Your task to perform on an android device: Install the Facebook app Image 0: 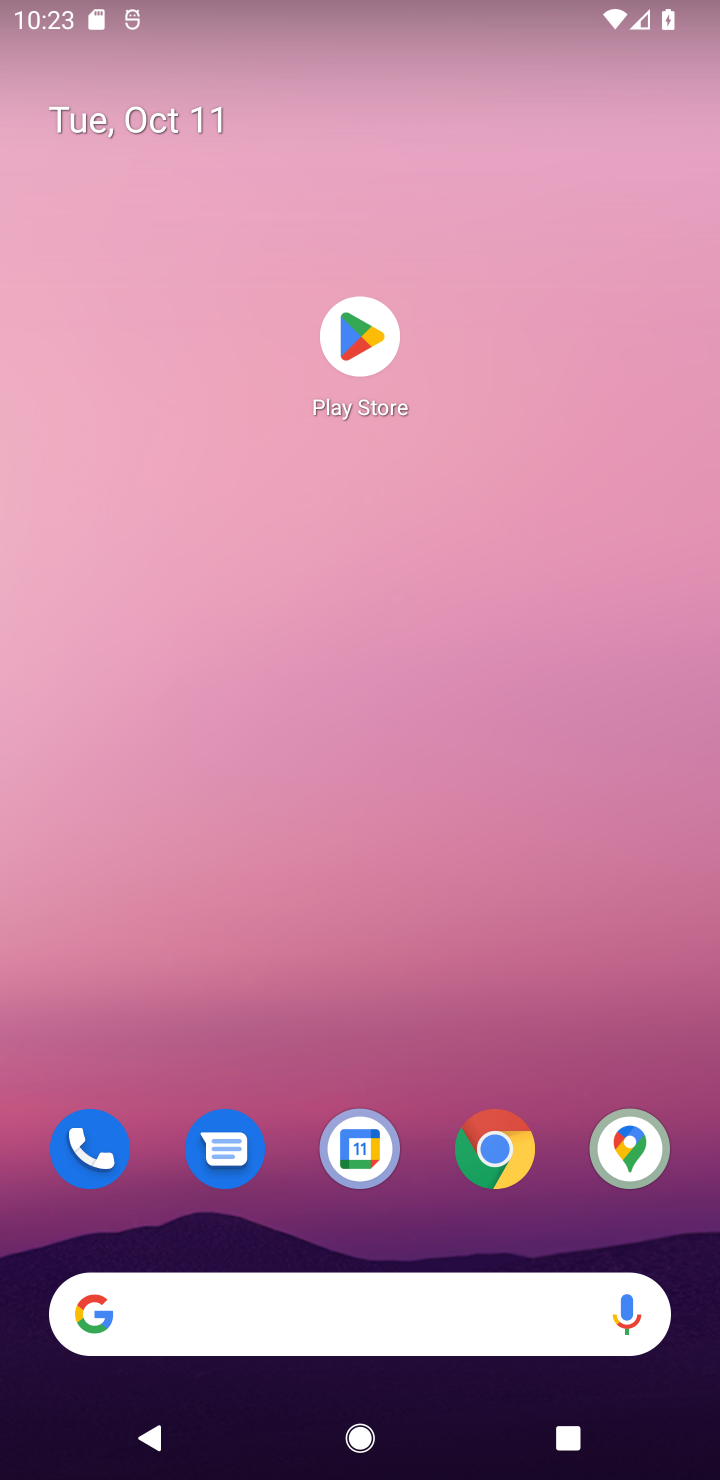
Step 0: click (331, 1276)
Your task to perform on an android device: Install the Facebook app Image 1: 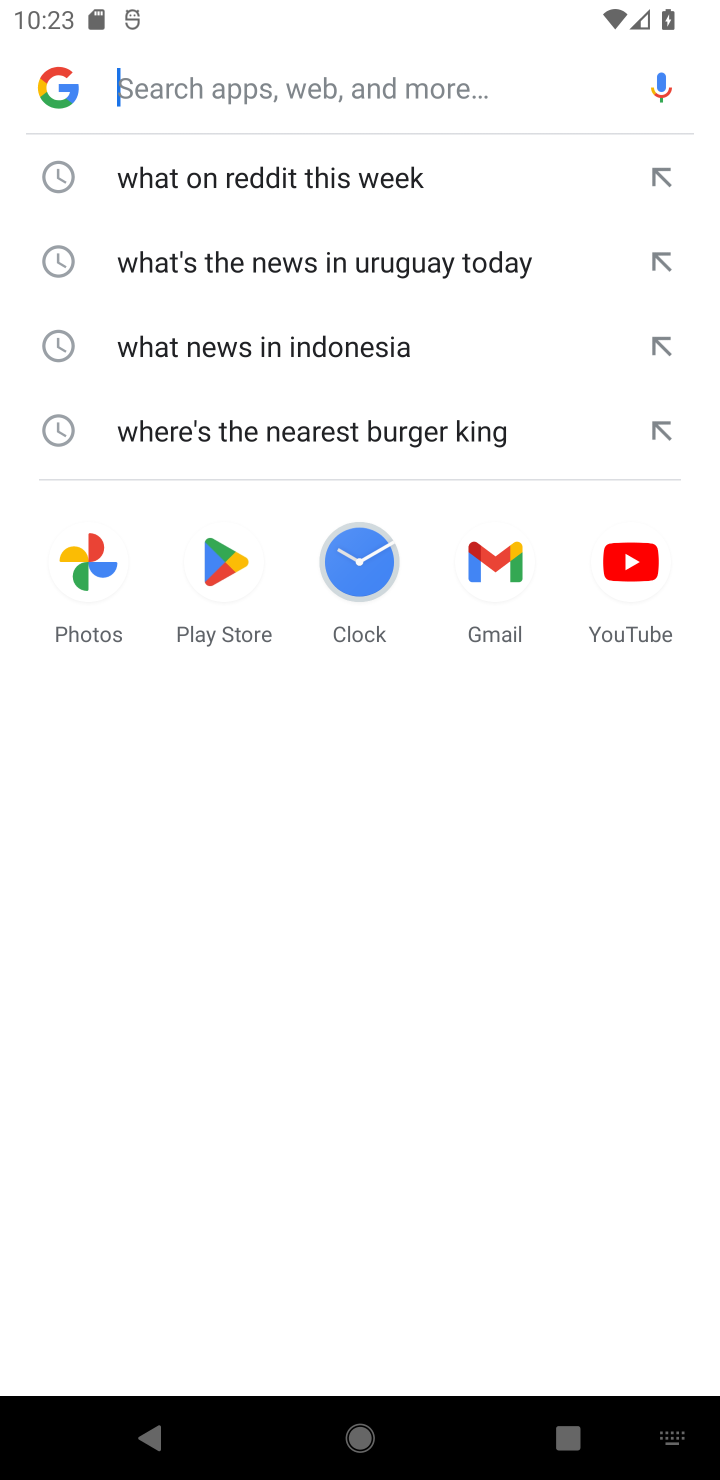
Step 1: click (321, 1303)
Your task to perform on an android device: Install the Facebook app Image 2: 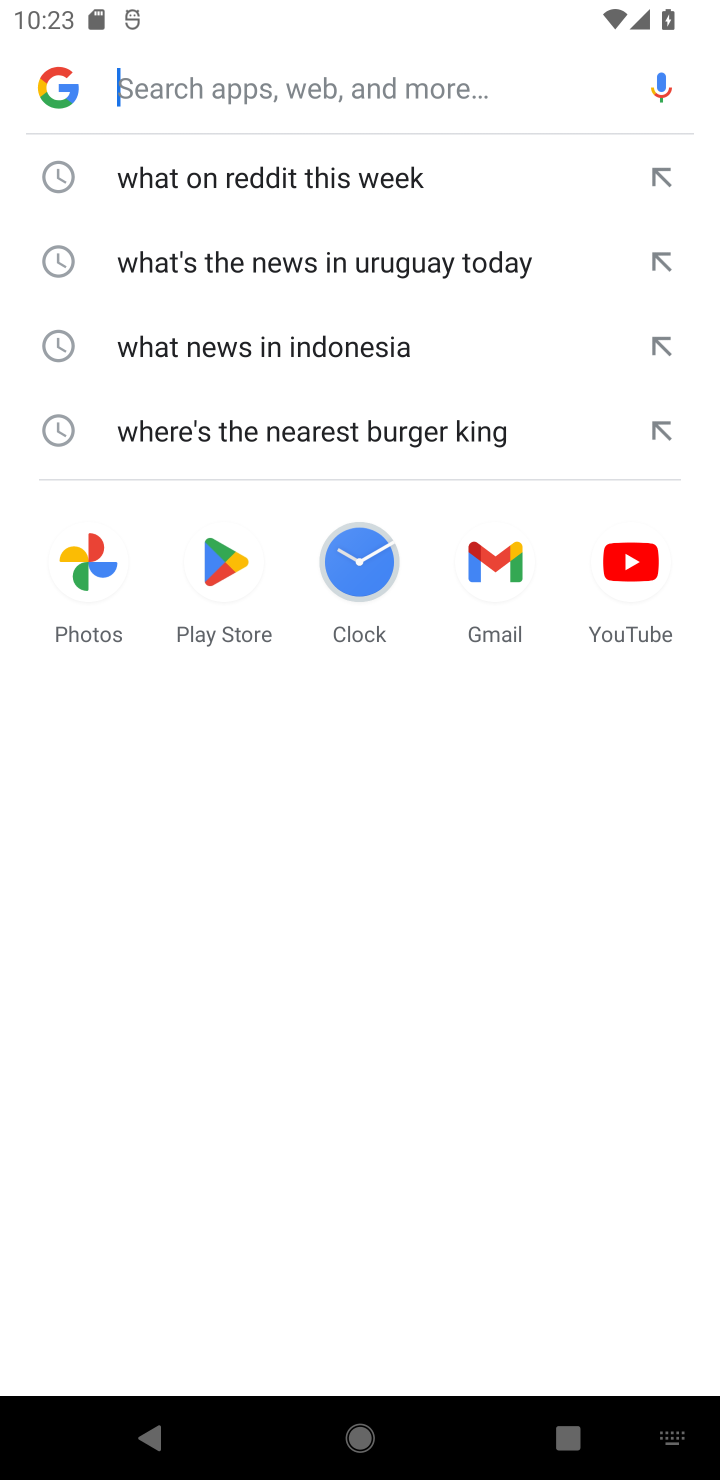
Step 2: type "Facebook app"
Your task to perform on an android device: Install the Facebook app Image 3: 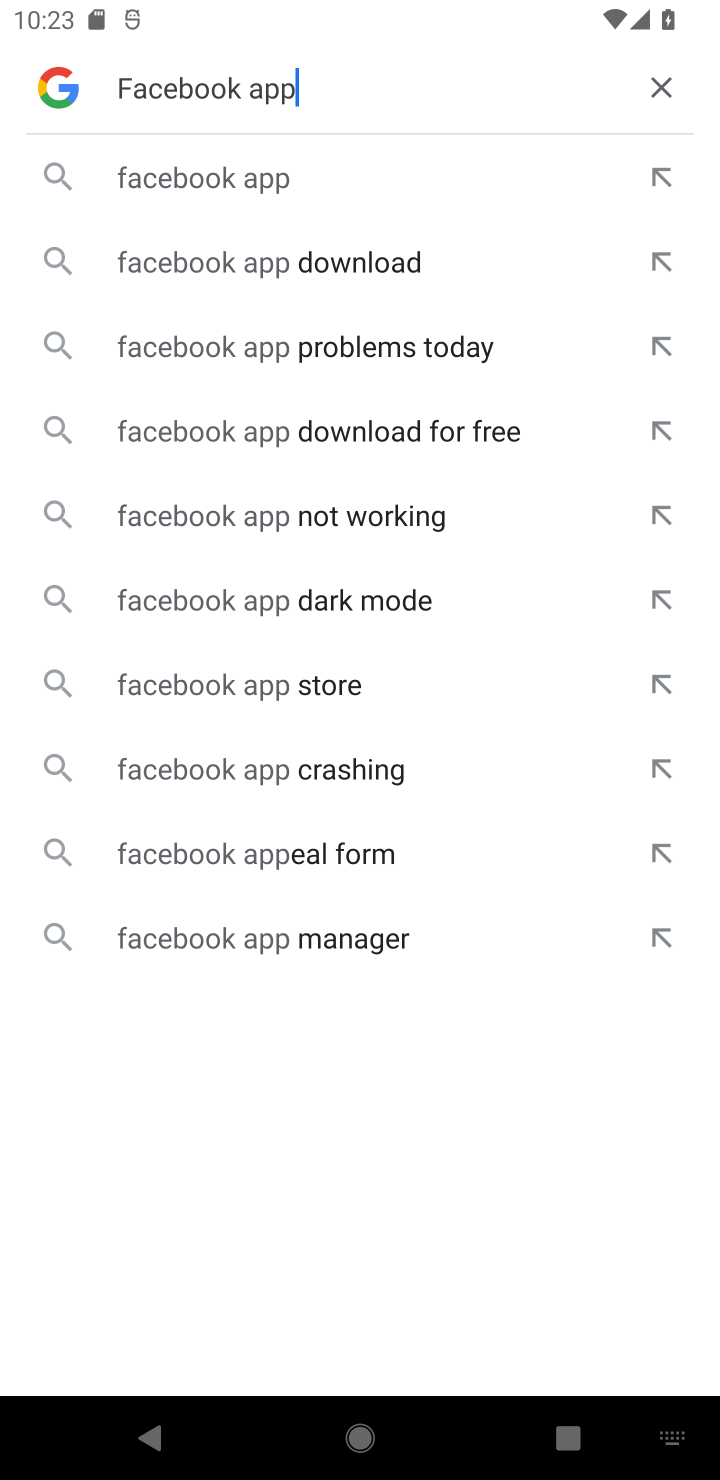
Step 3: click (262, 168)
Your task to perform on an android device: Install the Facebook app Image 4: 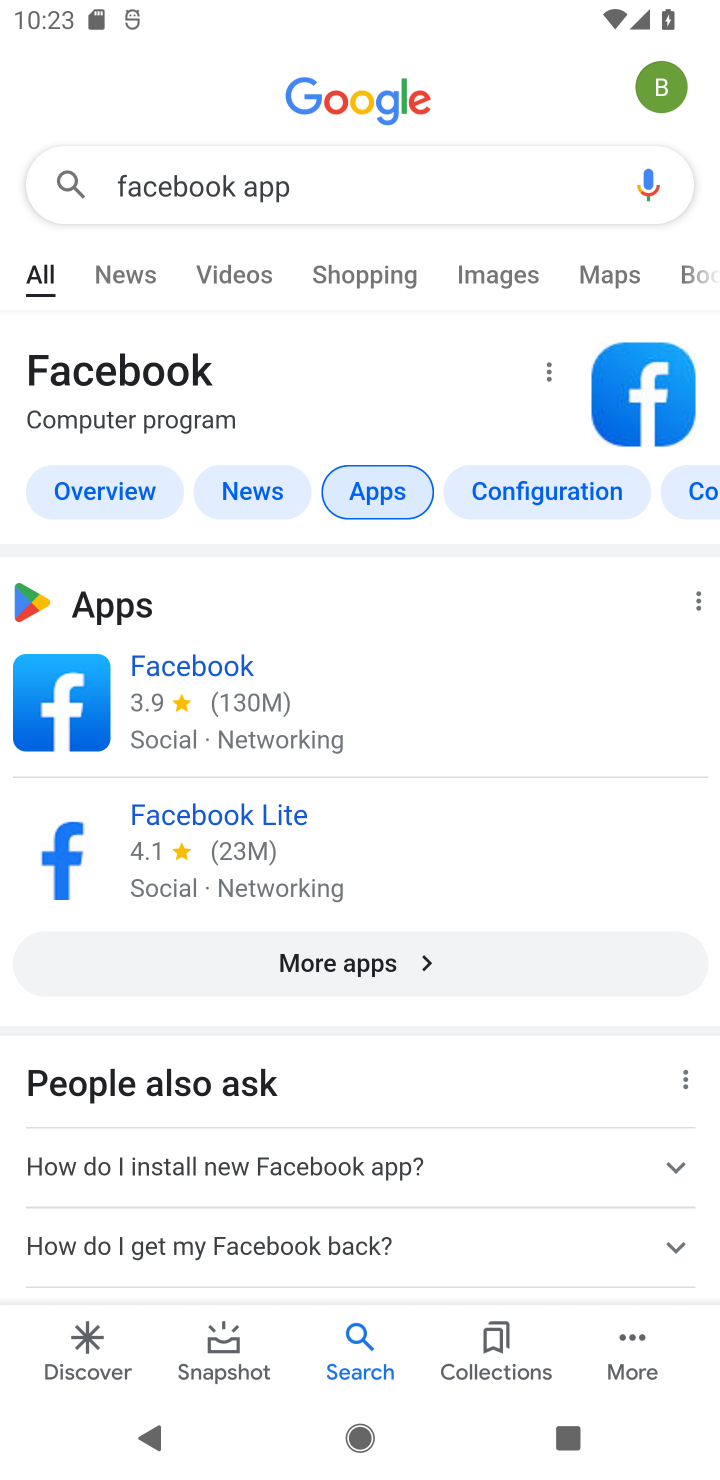
Step 4: click (231, 171)
Your task to perform on an android device: Install the Facebook app Image 5: 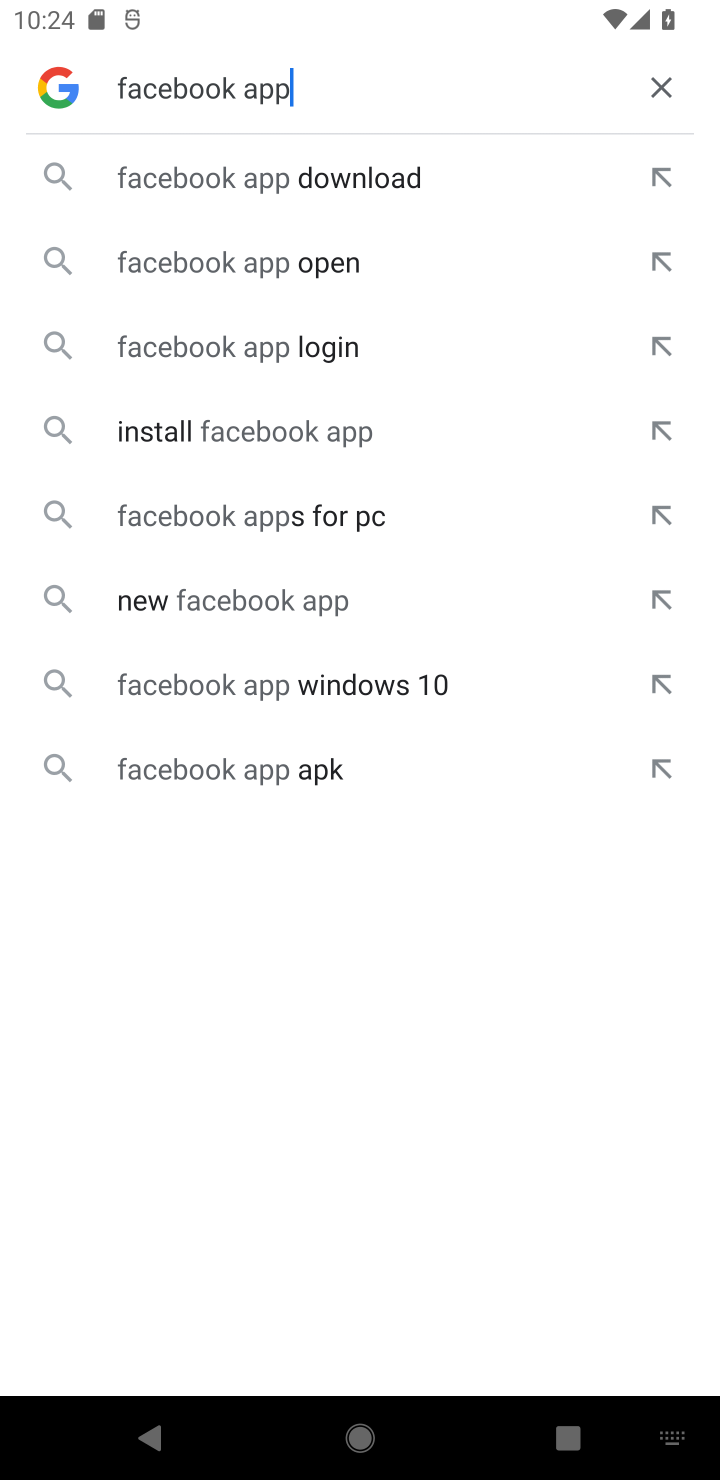
Step 5: click (358, 177)
Your task to perform on an android device: Install the Facebook app Image 6: 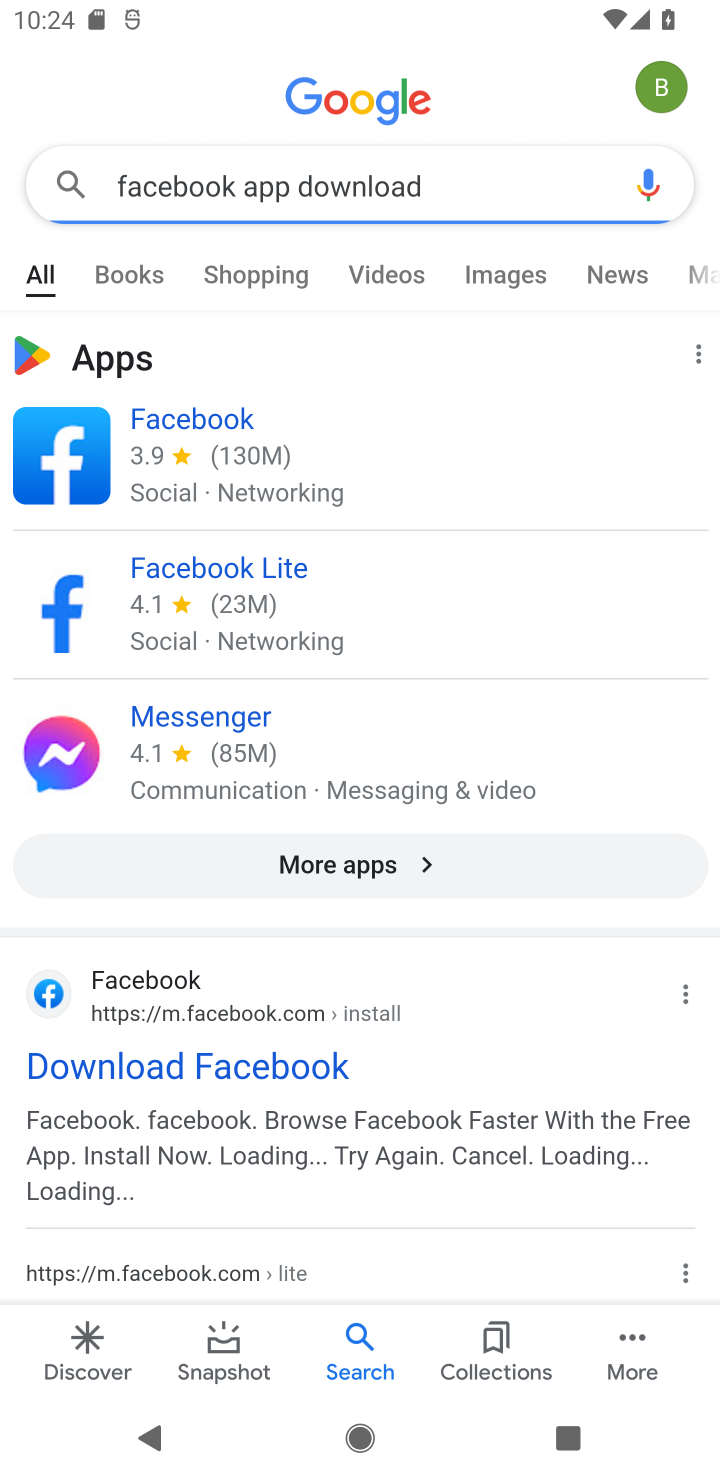
Step 6: click (358, 177)
Your task to perform on an android device: Install the Facebook app Image 7: 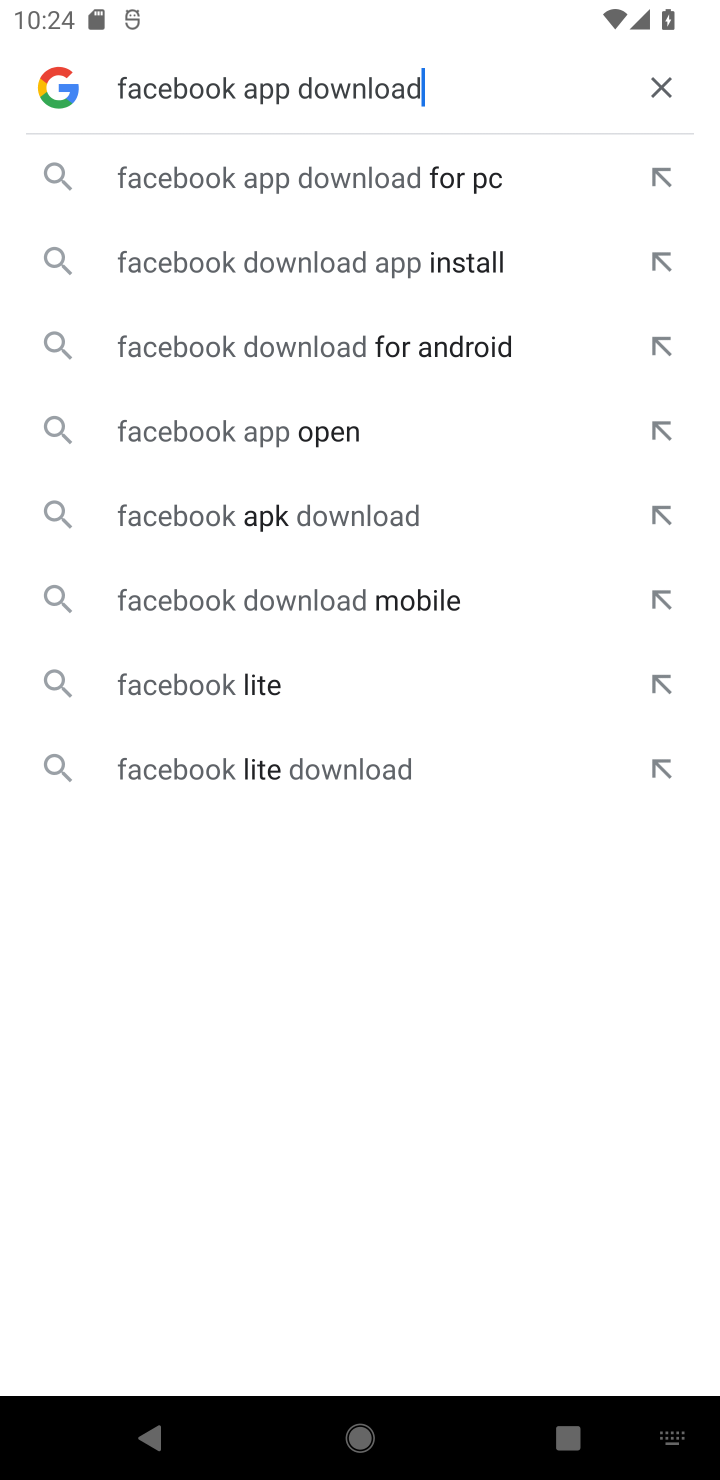
Step 7: press home button
Your task to perform on an android device: Install the Facebook app Image 8: 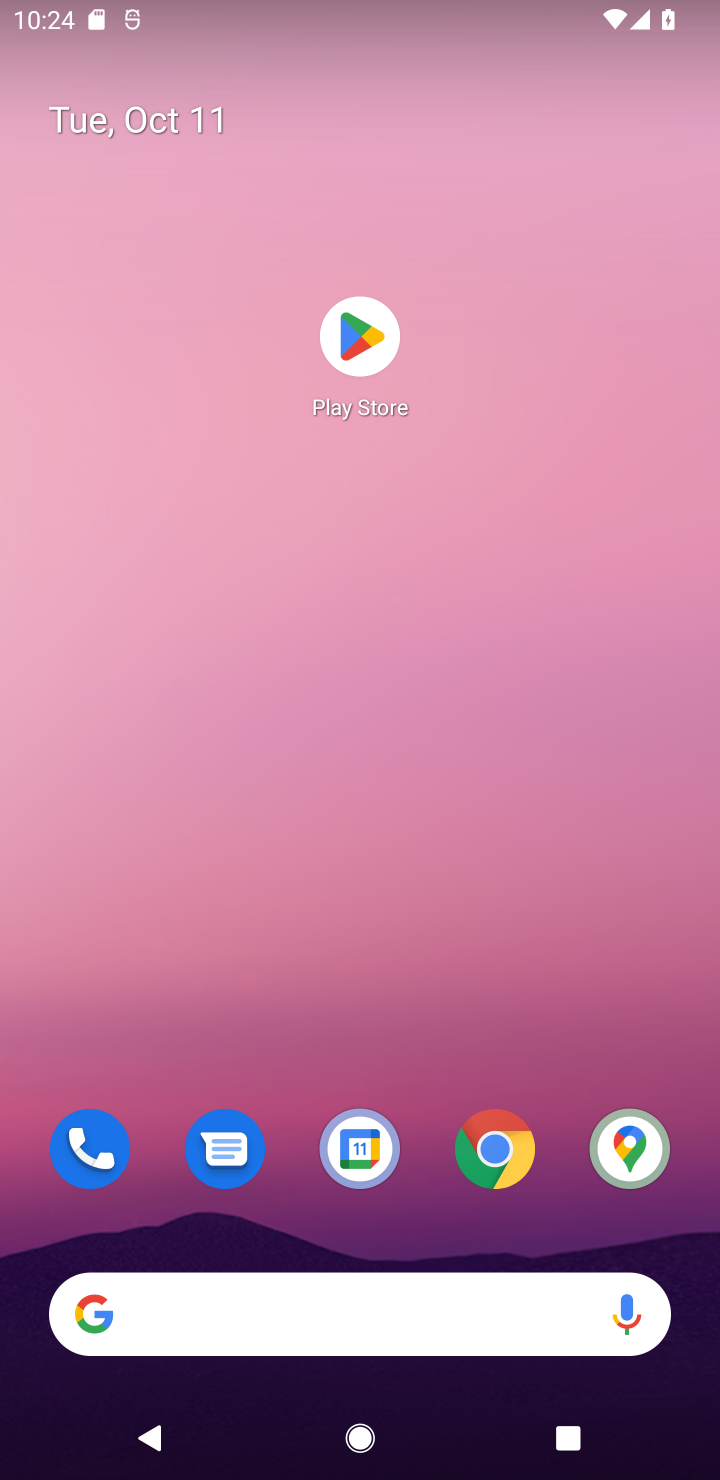
Step 8: drag from (331, 1066) to (367, 354)
Your task to perform on an android device: Install the Facebook app Image 9: 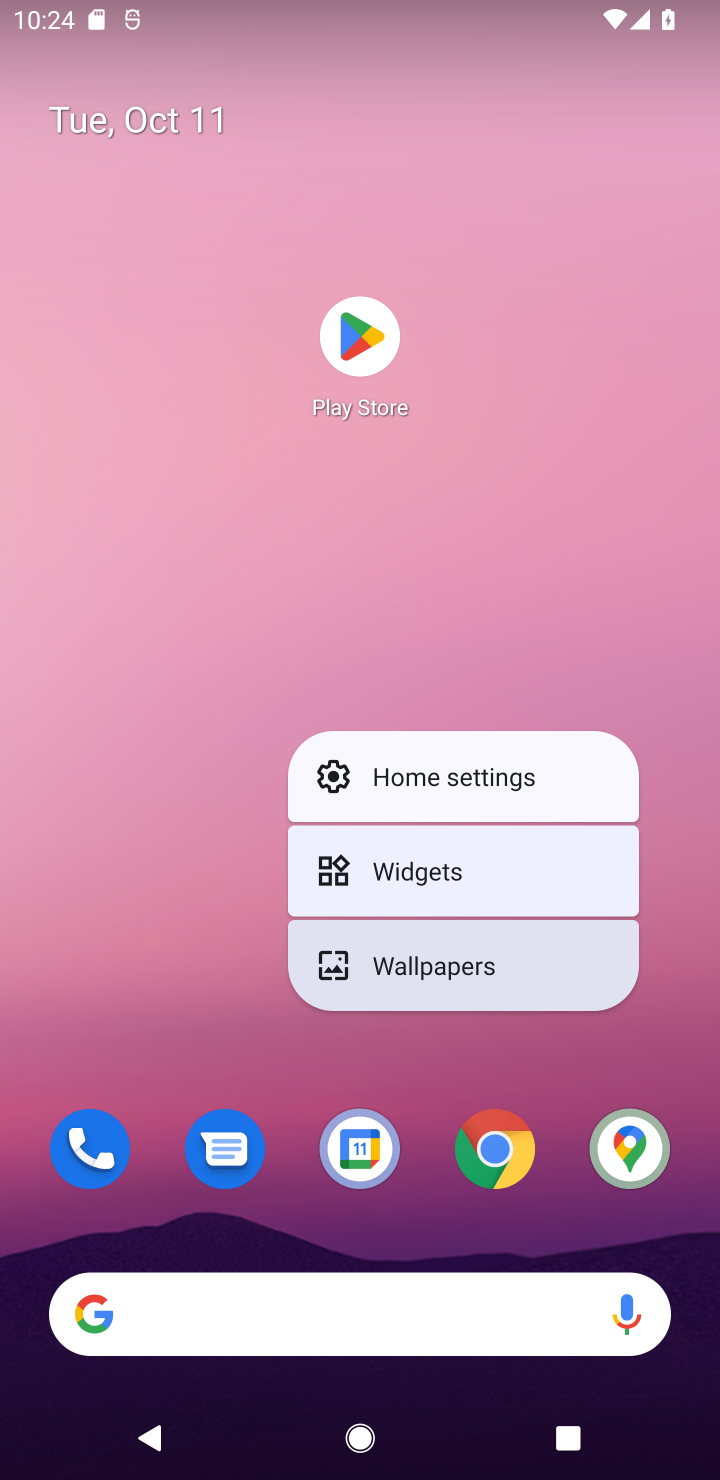
Step 9: click (367, 354)
Your task to perform on an android device: Install the Facebook app Image 10: 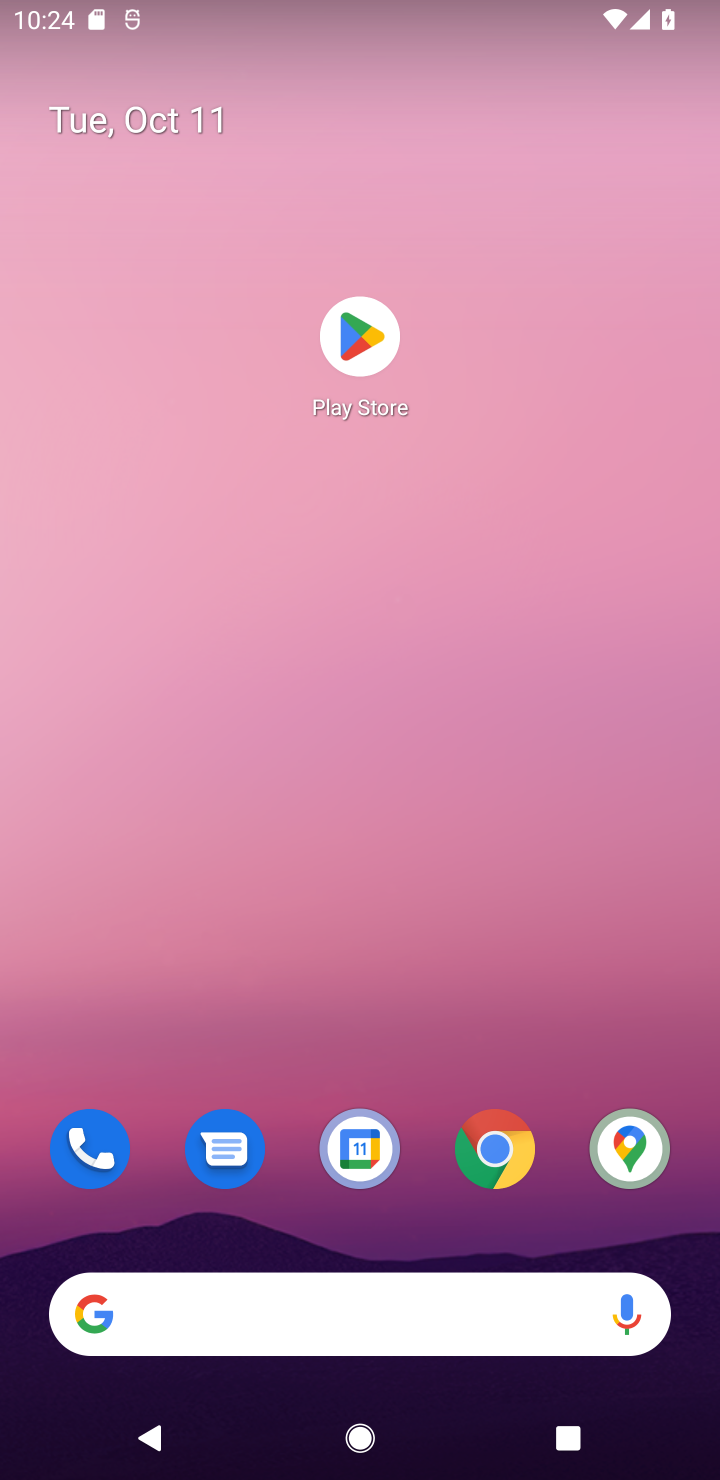
Step 10: click (357, 343)
Your task to perform on an android device: Install the Facebook app Image 11: 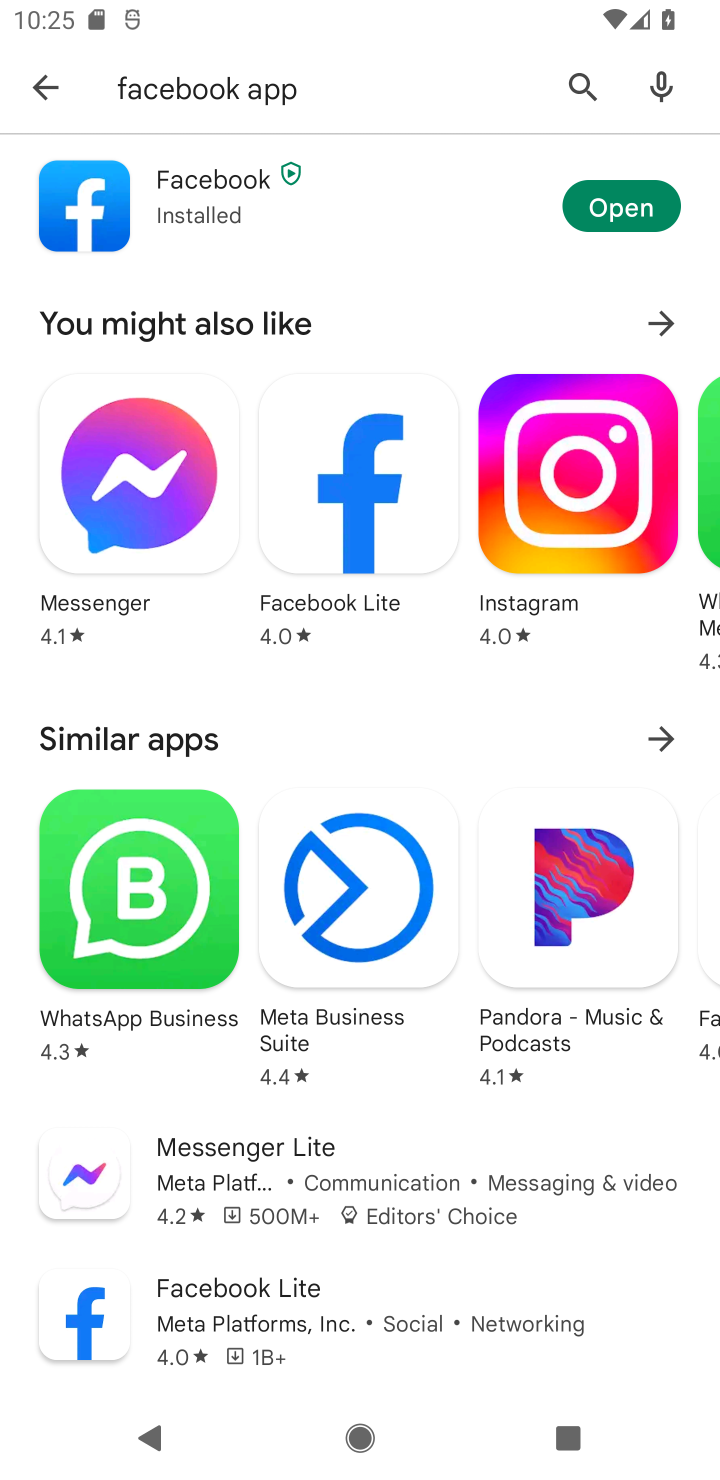
Step 11: click (639, 217)
Your task to perform on an android device: Install the Facebook app Image 12: 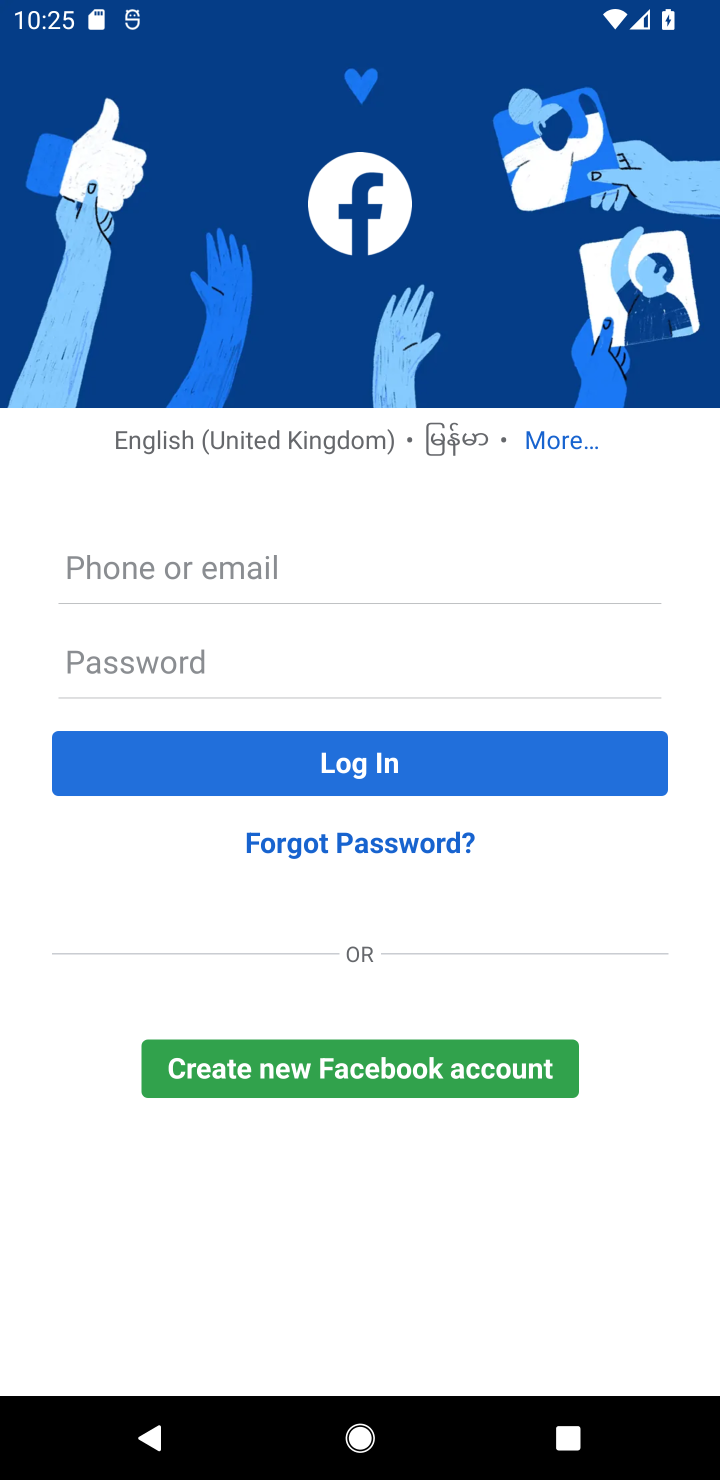
Step 12: task complete